Your task to perform on an android device: search for starred emails in the gmail app Image 0: 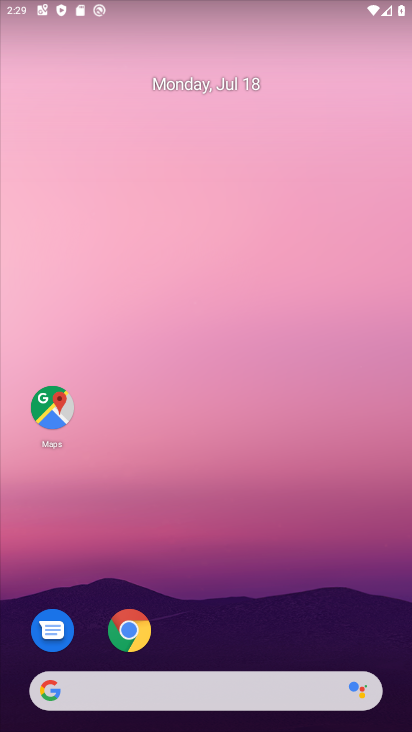
Step 0: drag from (407, 690) to (233, 11)
Your task to perform on an android device: search for starred emails in the gmail app Image 1: 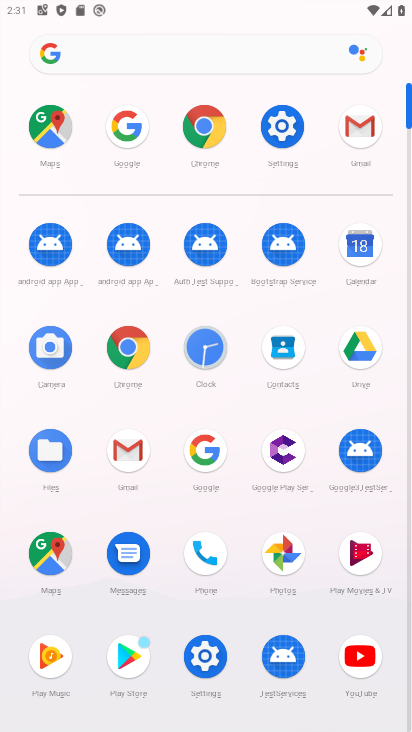
Step 1: click (127, 452)
Your task to perform on an android device: search for starred emails in the gmail app Image 2: 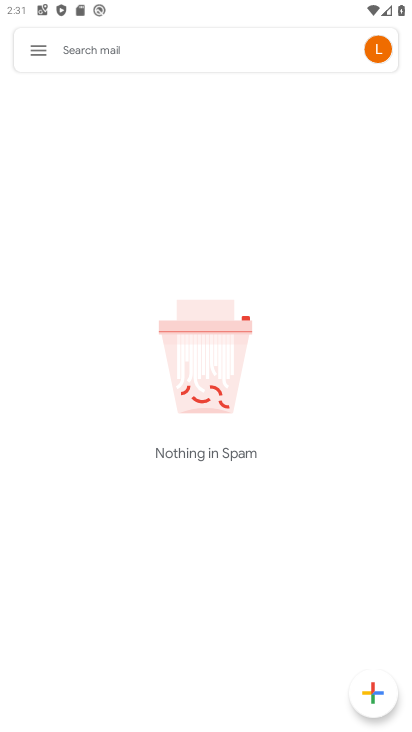
Step 2: click (39, 49)
Your task to perform on an android device: search for starred emails in the gmail app Image 3: 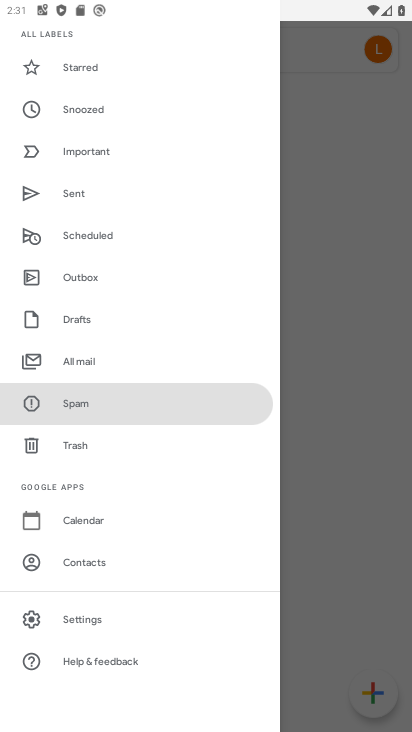
Step 3: click (80, 75)
Your task to perform on an android device: search for starred emails in the gmail app Image 4: 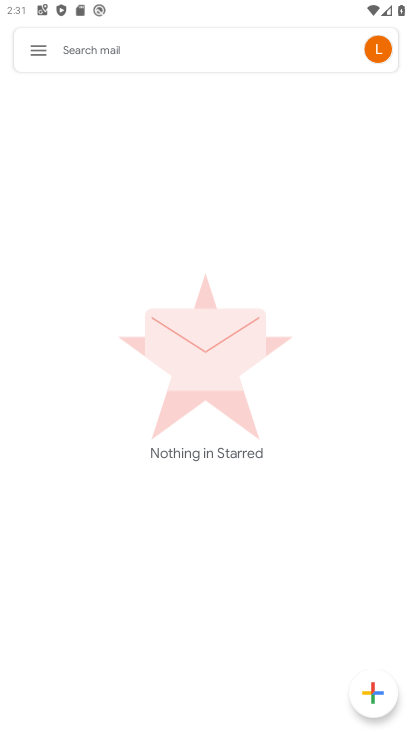
Step 4: task complete